Your task to perform on an android device: open the mobile data screen to see how much data has been used Image 0: 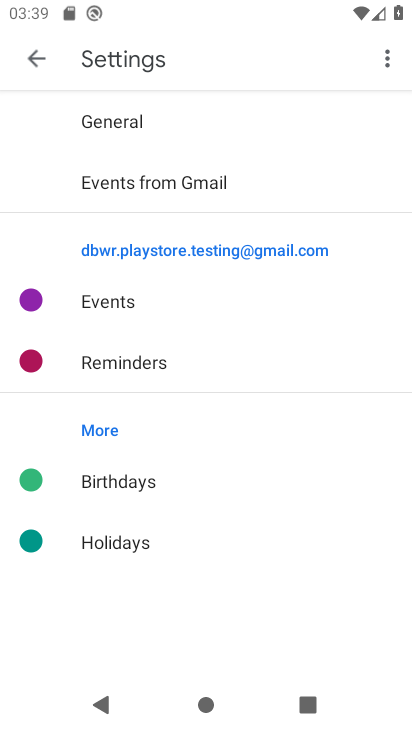
Step 0: press home button
Your task to perform on an android device: open the mobile data screen to see how much data has been used Image 1: 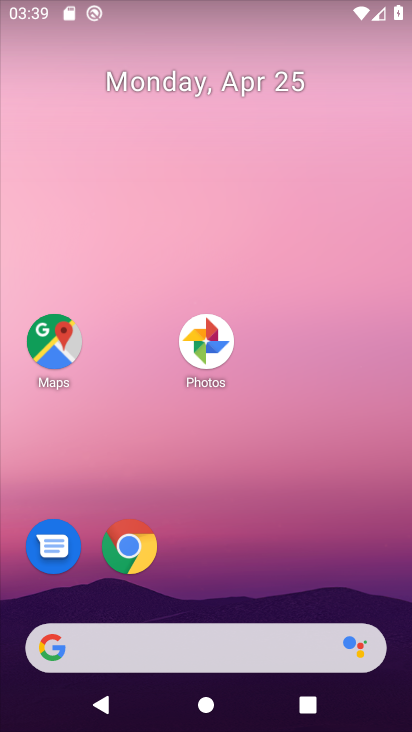
Step 1: drag from (282, 600) to (250, 303)
Your task to perform on an android device: open the mobile data screen to see how much data has been used Image 2: 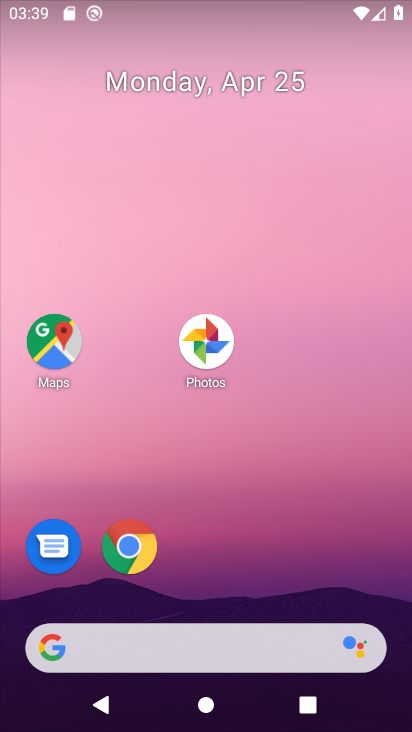
Step 2: drag from (245, 583) to (271, 275)
Your task to perform on an android device: open the mobile data screen to see how much data has been used Image 3: 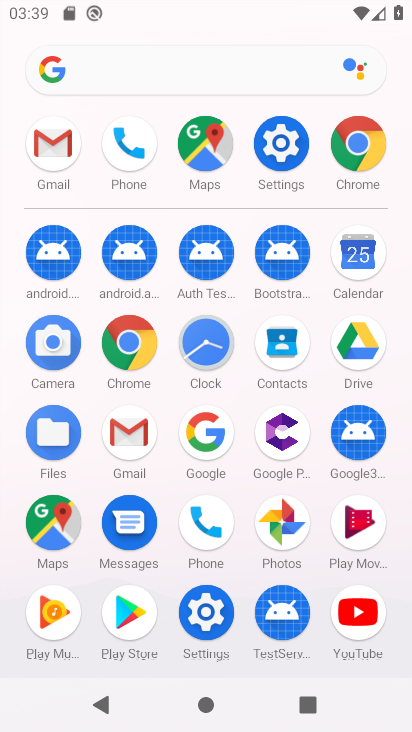
Step 3: click (282, 150)
Your task to perform on an android device: open the mobile data screen to see how much data has been used Image 4: 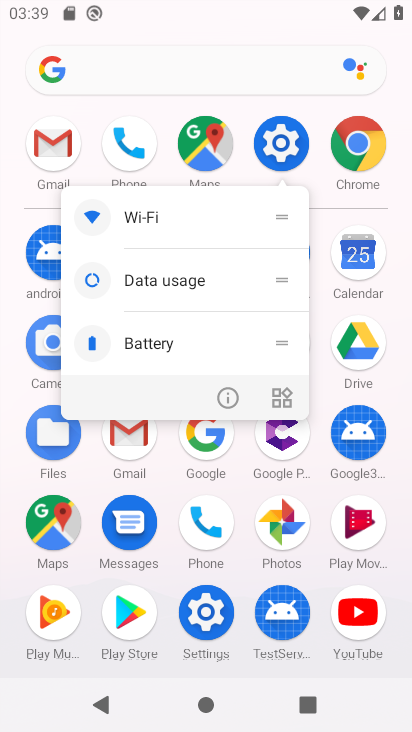
Step 4: click (268, 143)
Your task to perform on an android device: open the mobile data screen to see how much data has been used Image 5: 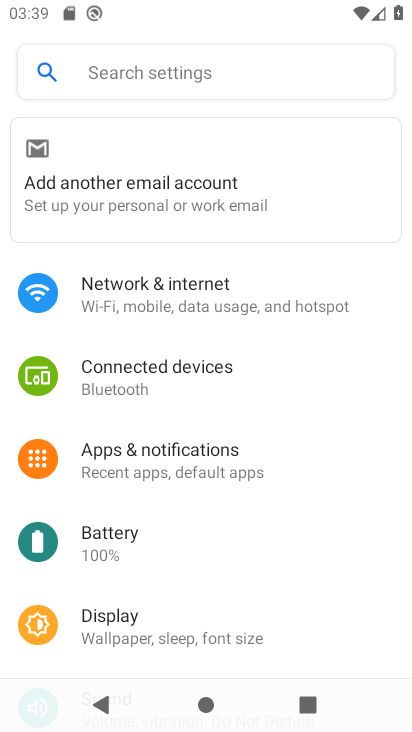
Step 5: click (207, 300)
Your task to perform on an android device: open the mobile data screen to see how much data has been used Image 6: 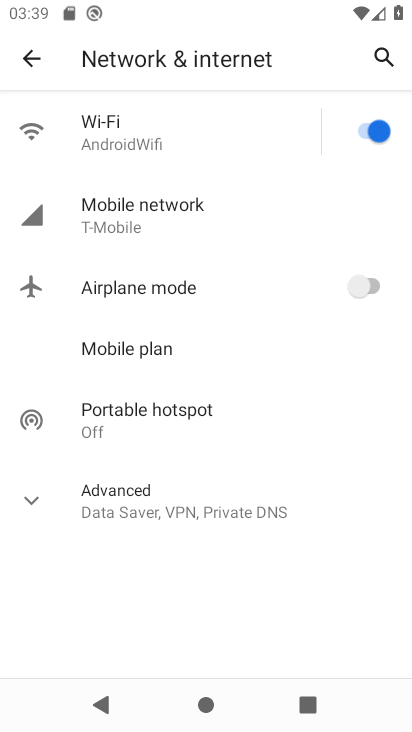
Step 6: click (179, 214)
Your task to perform on an android device: open the mobile data screen to see how much data has been used Image 7: 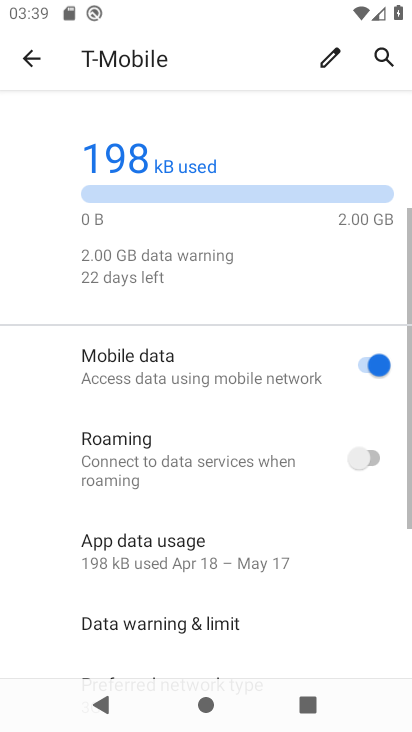
Step 7: click (165, 348)
Your task to perform on an android device: open the mobile data screen to see how much data has been used Image 8: 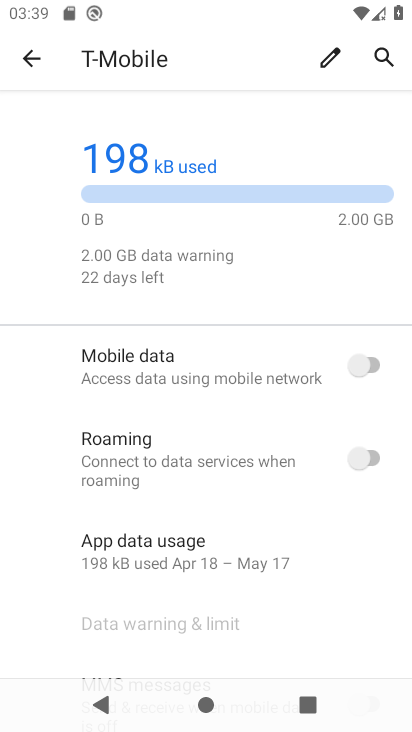
Step 8: click (207, 547)
Your task to perform on an android device: open the mobile data screen to see how much data has been used Image 9: 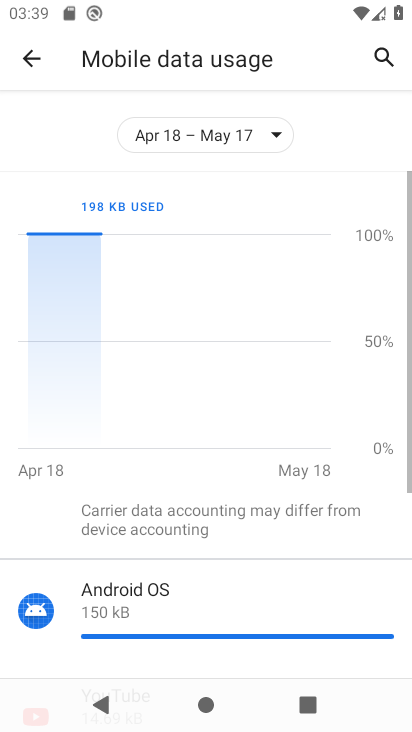
Step 9: drag from (251, 506) to (290, 223)
Your task to perform on an android device: open the mobile data screen to see how much data has been used Image 10: 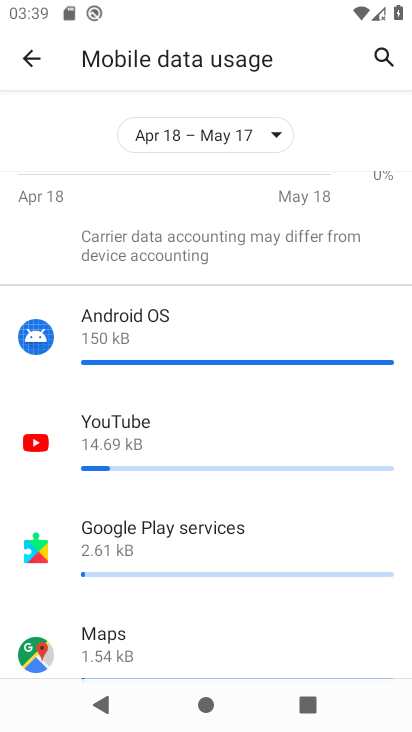
Step 10: click (361, 620)
Your task to perform on an android device: open the mobile data screen to see how much data has been used Image 11: 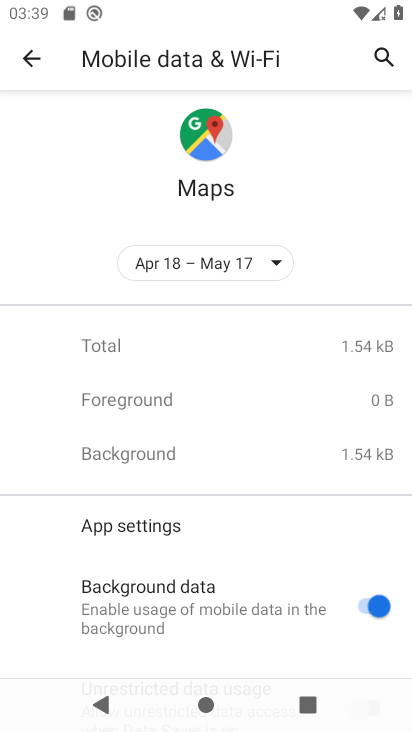
Step 11: task complete